Your task to perform on an android device: Do I have any events today? Image 0: 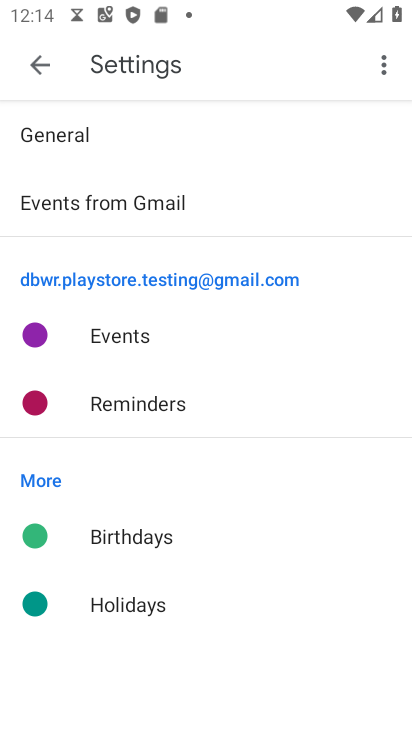
Step 0: press home button
Your task to perform on an android device: Do I have any events today? Image 1: 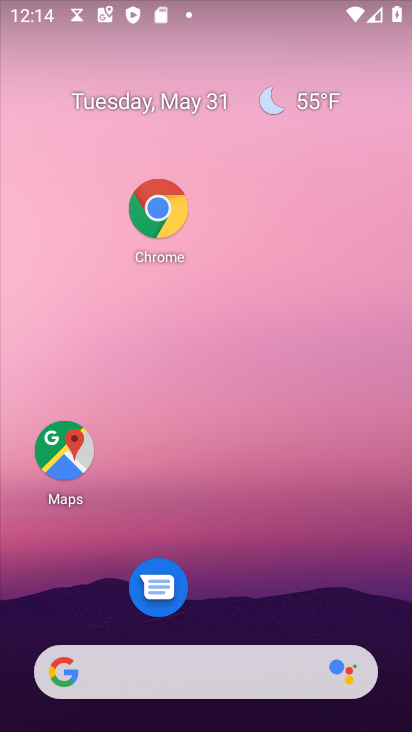
Step 1: drag from (235, 598) to (187, 123)
Your task to perform on an android device: Do I have any events today? Image 2: 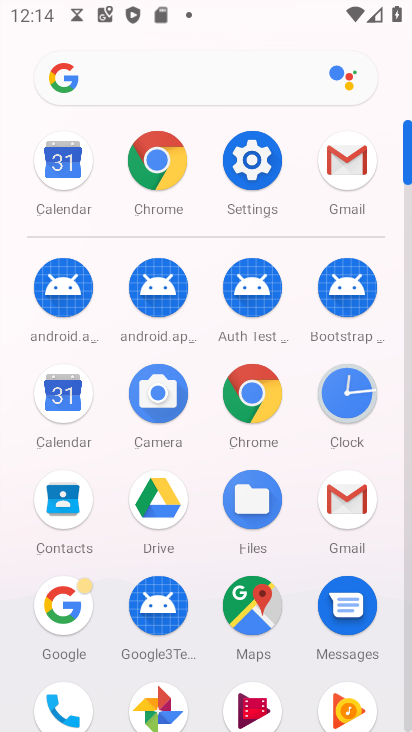
Step 2: click (63, 182)
Your task to perform on an android device: Do I have any events today? Image 3: 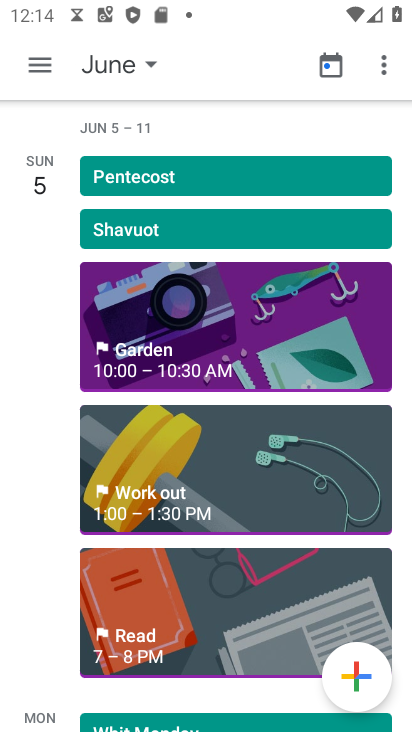
Step 3: click (109, 74)
Your task to perform on an android device: Do I have any events today? Image 4: 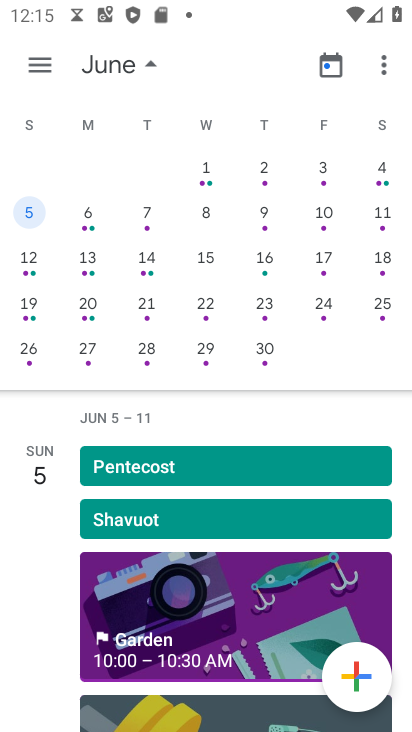
Step 4: drag from (62, 220) to (373, 214)
Your task to perform on an android device: Do I have any events today? Image 5: 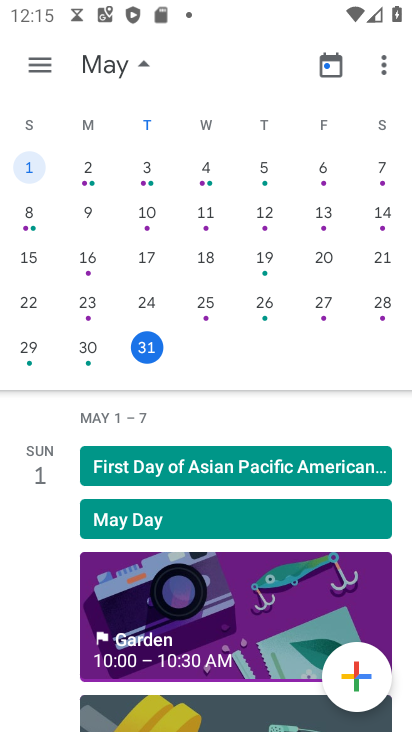
Step 5: click (158, 347)
Your task to perform on an android device: Do I have any events today? Image 6: 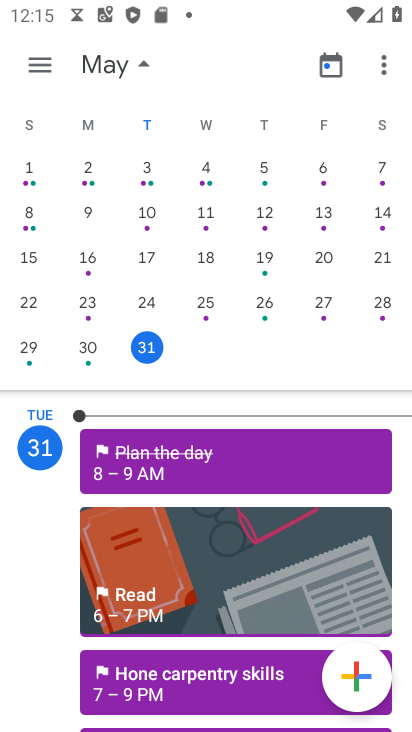
Step 6: task complete